Your task to perform on an android device: Search for the best rated drill on Lowes.com Image 0: 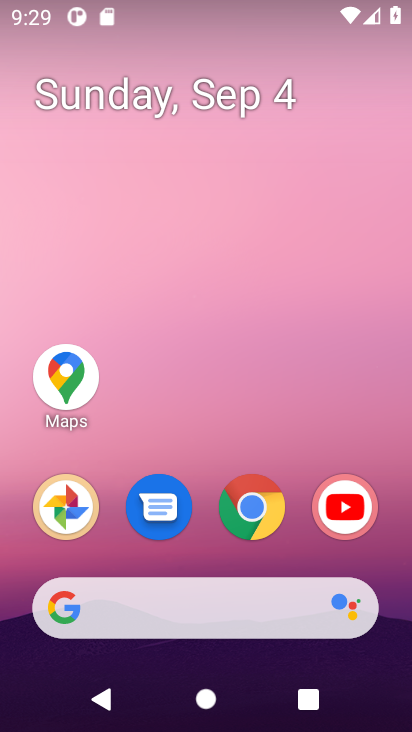
Step 0: click (248, 507)
Your task to perform on an android device: Search for the best rated drill on Lowes.com Image 1: 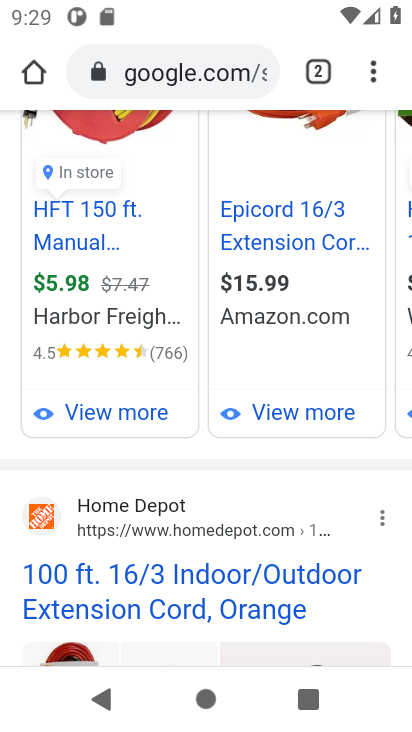
Step 1: click (145, 51)
Your task to perform on an android device: Search for the best rated drill on Lowes.com Image 2: 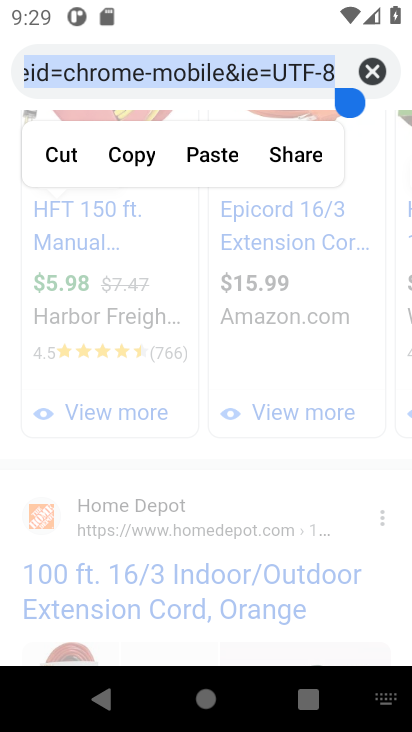
Step 2: click (371, 66)
Your task to perform on an android device: Search for the best rated drill on Lowes.com Image 3: 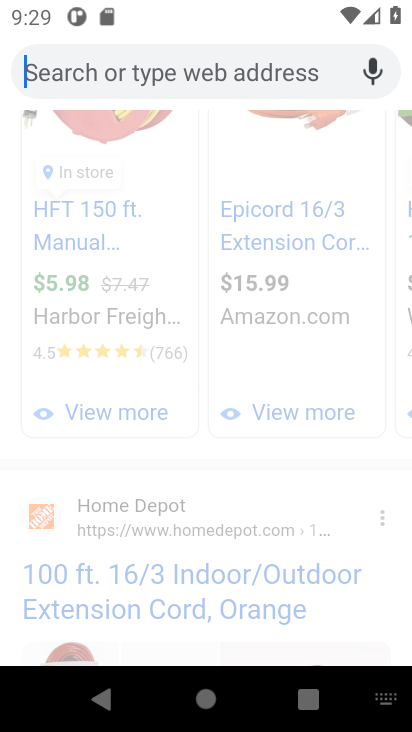
Step 3: type "Lowes.com"
Your task to perform on an android device: Search for the best rated drill on Lowes.com Image 4: 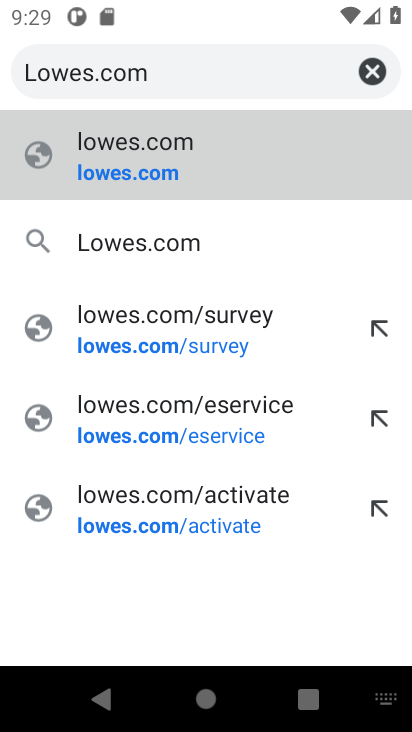
Step 4: click (117, 142)
Your task to perform on an android device: Search for the best rated drill on Lowes.com Image 5: 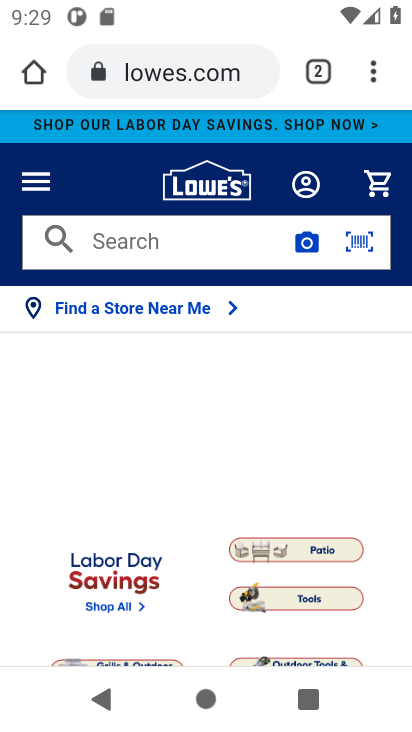
Step 5: click (132, 237)
Your task to perform on an android device: Search for the best rated drill on Lowes.com Image 6: 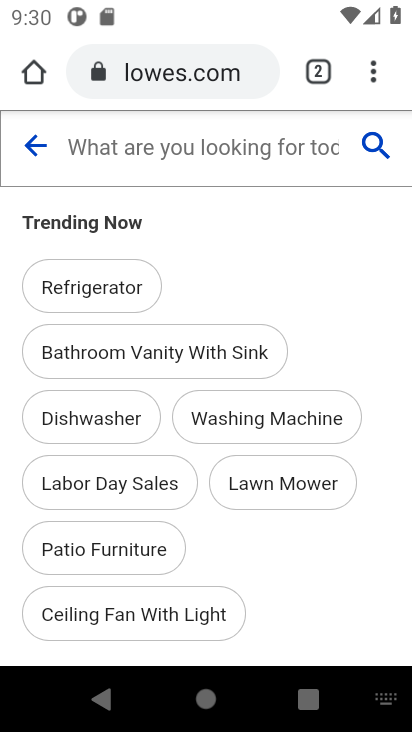
Step 6: type "best rated drill"
Your task to perform on an android device: Search for the best rated drill on Lowes.com Image 7: 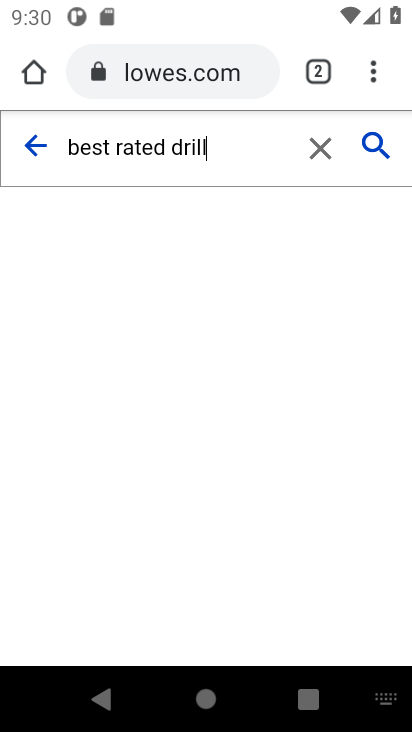
Step 7: click (372, 139)
Your task to perform on an android device: Search for the best rated drill on Lowes.com Image 8: 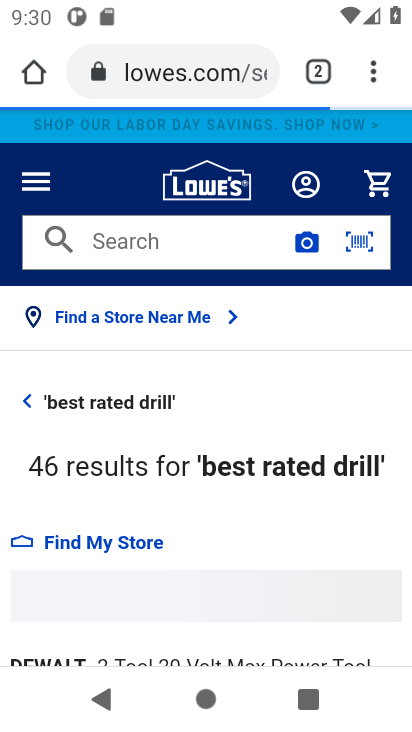
Step 8: drag from (203, 589) to (214, 253)
Your task to perform on an android device: Search for the best rated drill on Lowes.com Image 9: 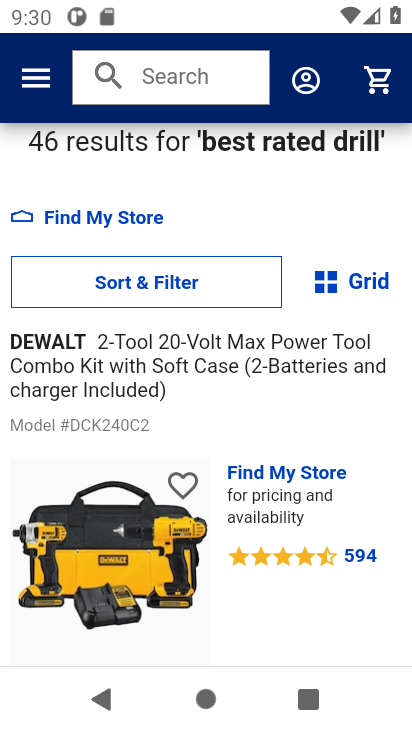
Step 9: click (140, 280)
Your task to perform on an android device: Search for the best rated drill on Lowes.com Image 10: 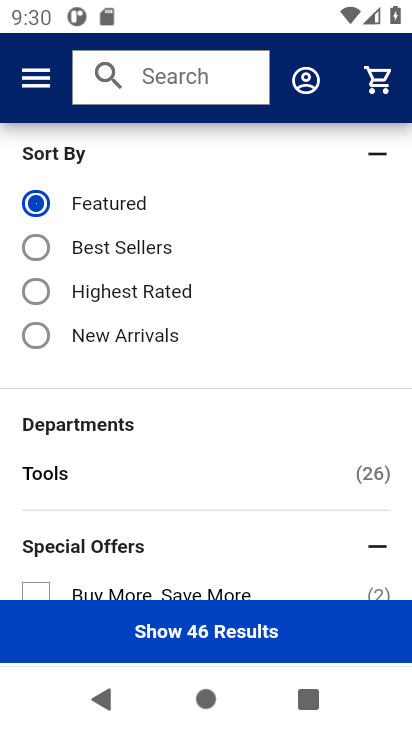
Step 10: click (37, 293)
Your task to perform on an android device: Search for the best rated drill on Lowes.com Image 11: 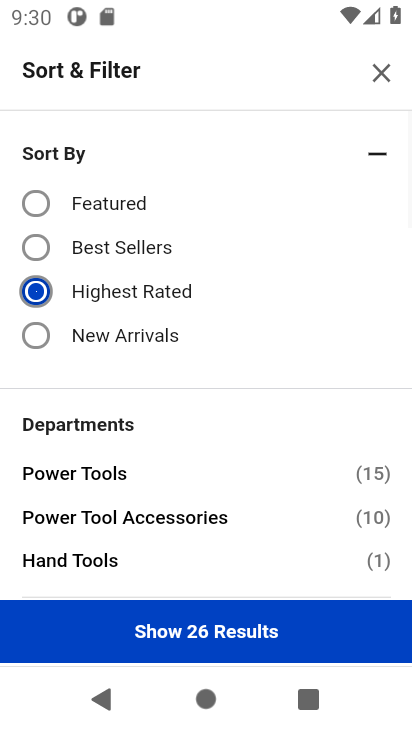
Step 11: click (192, 630)
Your task to perform on an android device: Search for the best rated drill on Lowes.com Image 12: 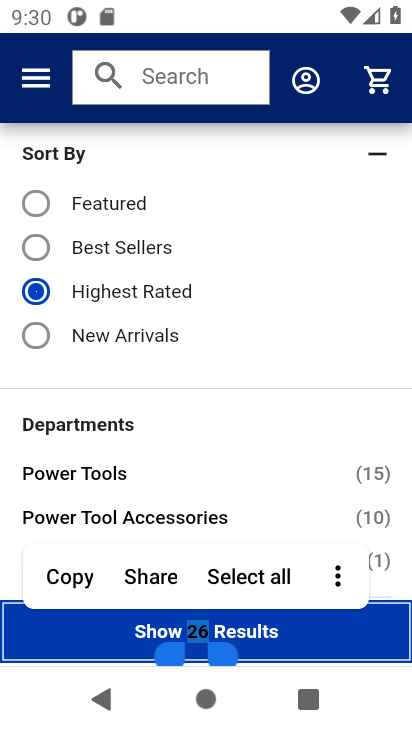
Step 12: click (135, 638)
Your task to perform on an android device: Search for the best rated drill on Lowes.com Image 13: 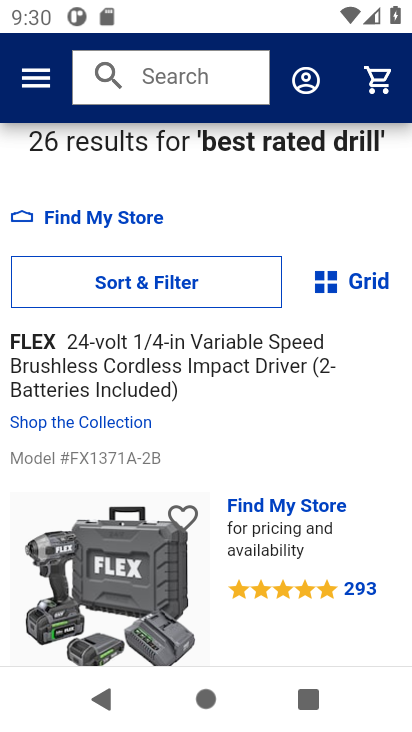
Step 13: task complete